Your task to perform on an android device: Open the web browser Image 0: 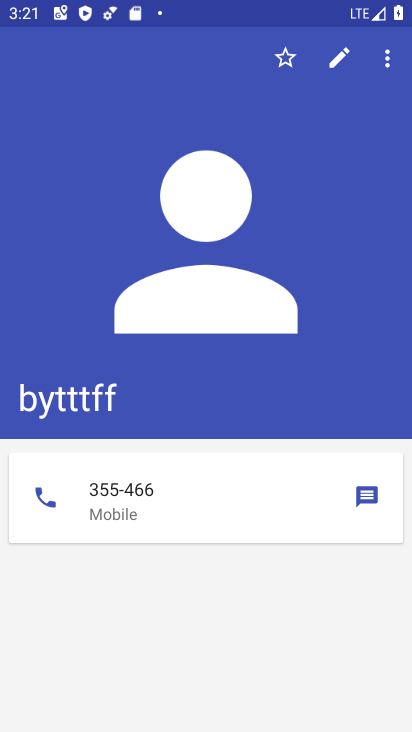
Step 0: press home button
Your task to perform on an android device: Open the web browser Image 1: 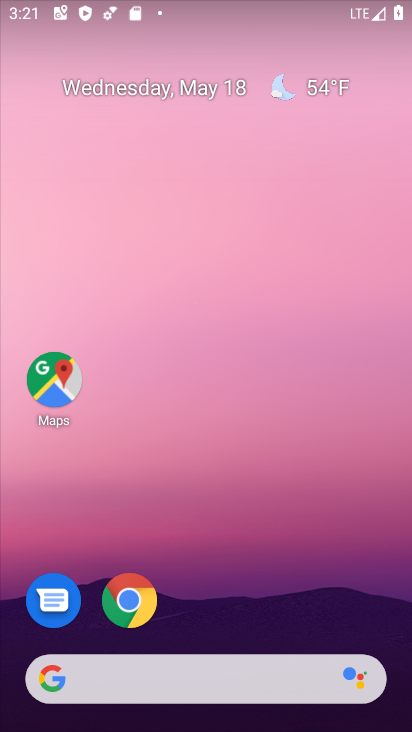
Step 1: click (109, 600)
Your task to perform on an android device: Open the web browser Image 2: 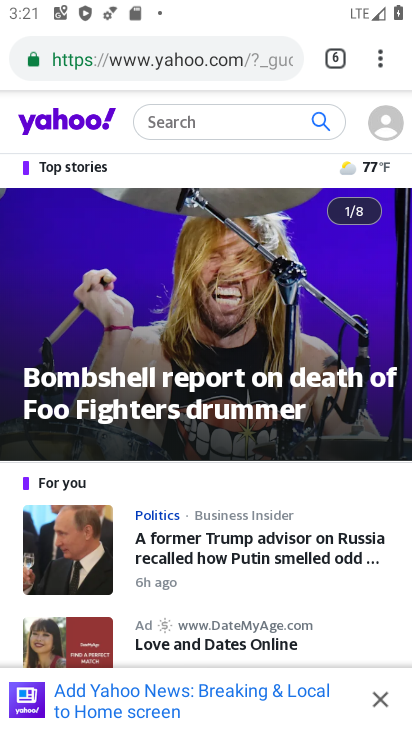
Step 2: task complete